Your task to perform on an android device: toggle javascript in the chrome app Image 0: 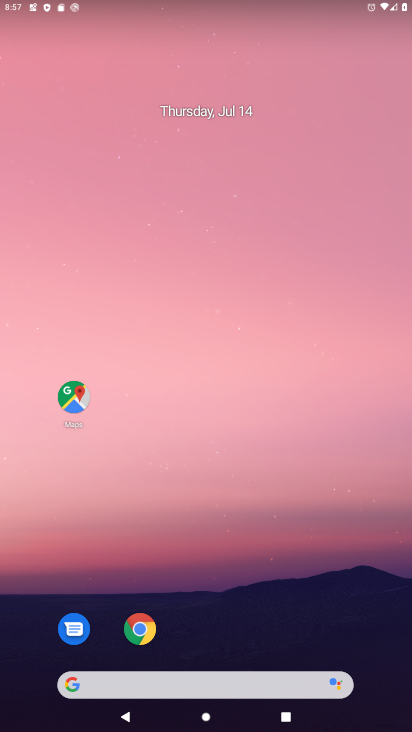
Step 0: click (141, 627)
Your task to perform on an android device: toggle javascript in the chrome app Image 1: 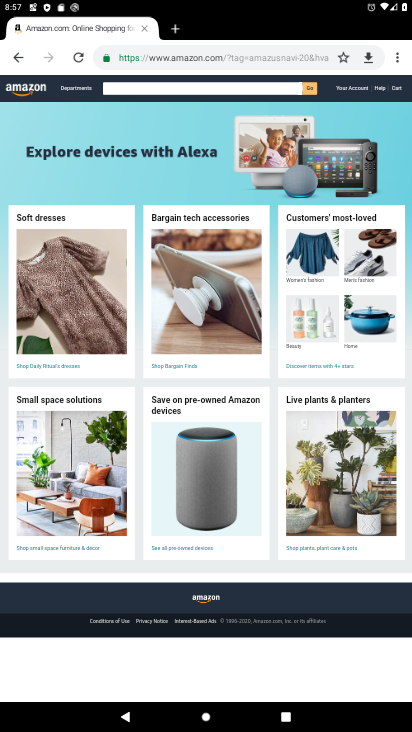
Step 1: click (141, 624)
Your task to perform on an android device: toggle javascript in the chrome app Image 2: 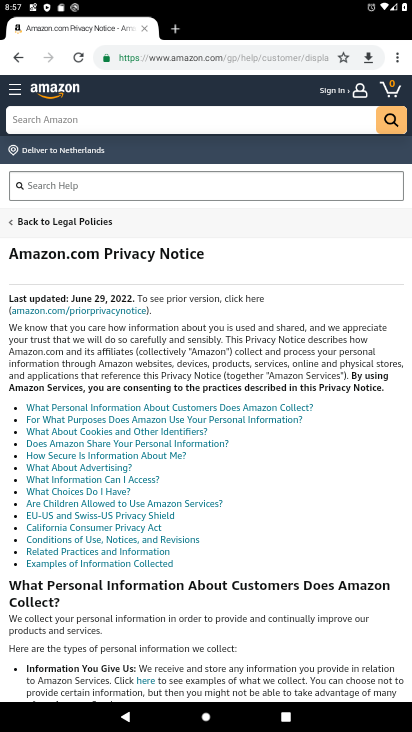
Step 2: click (387, 64)
Your task to perform on an android device: toggle javascript in the chrome app Image 3: 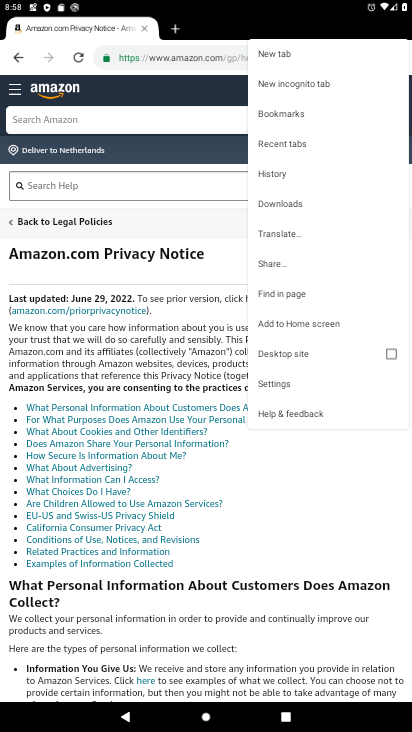
Step 3: click (286, 384)
Your task to perform on an android device: toggle javascript in the chrome app Image 4: 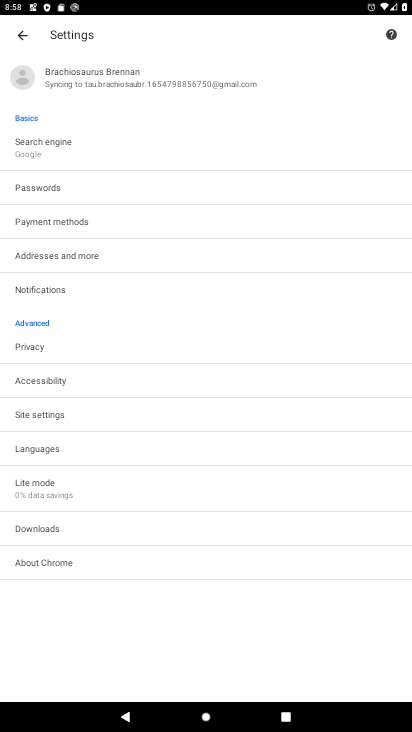
Step 4: click (125, 414)
Your task to perform on an android device: toggle javascript in the chrome app Image 5: 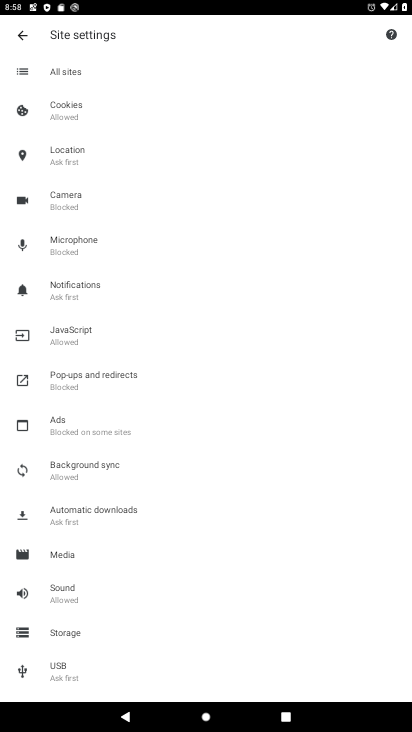
Step 5: click (92, 335)
Your task to perform on an android device: toggle javascript in the chrome app Image 6: 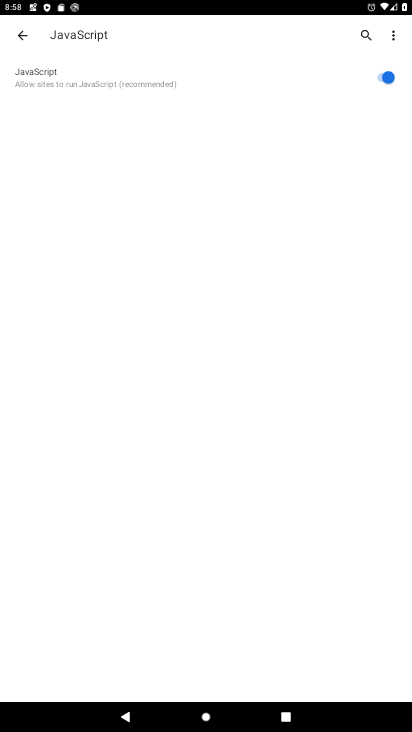
Step 6: click (395, 77)
Your task to perform on an android device: toggle javascript in the chrome app Image 7: 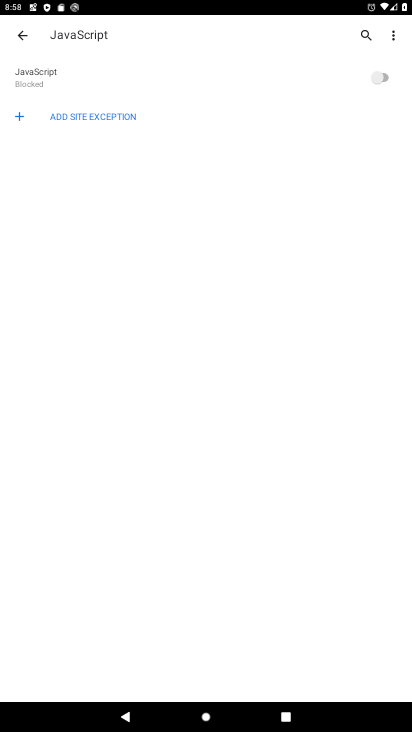
Step 7: task complete